Your task to perform on an android device: Show me the best basketball shoes on Nike.com Image 0: 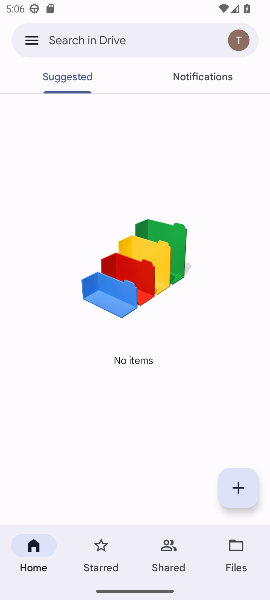
Step 0: press home button
Your task to perform on an android device: Show me the best basketball shoes on Nike.com Image 1: 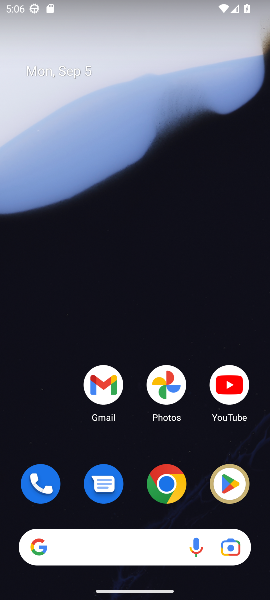
Step 1: click (166, 490)
Your task to perform on an android device: Show me the best basketball shoes on Nike.com Image 2: 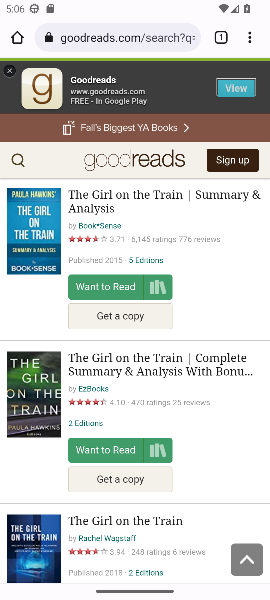
Step 2: click (174, 35)
Your task to perform on an android device: Show me the best basketball shoes on Nike.com Image 3: 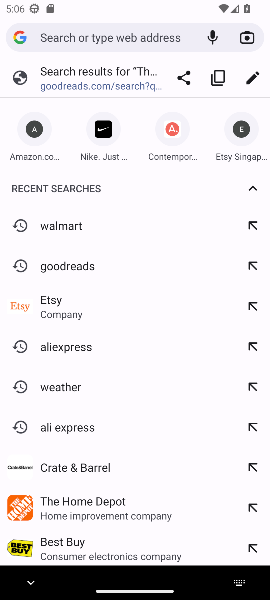
Step 3: type "Nike.com"
Your task to perform on an android device: Show me the best basketball shoes on Nike.com Image 4: 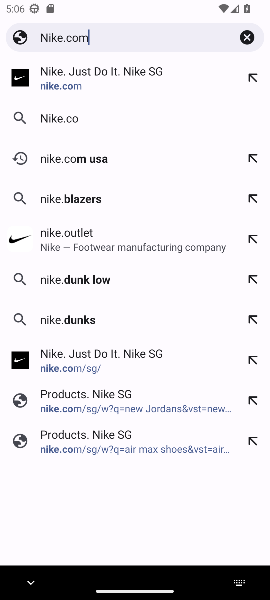
Step 4: press enter
Your task to perform on an android device: Show me the best basketball shoes on Nike.com Image 5: 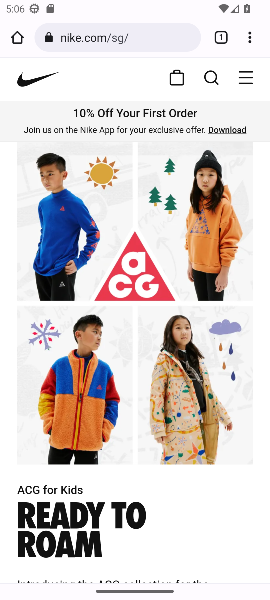
Step 5: click (199, 68)
Your task to perform on an android device: Show me the best basketball shoes on Nike.com Image 6: 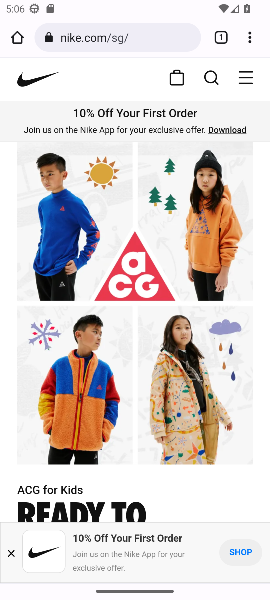
Step 6: click (204, 77)
Your task to perform on an android device: Show me the best basketball shoes on Nike.com Image 7: 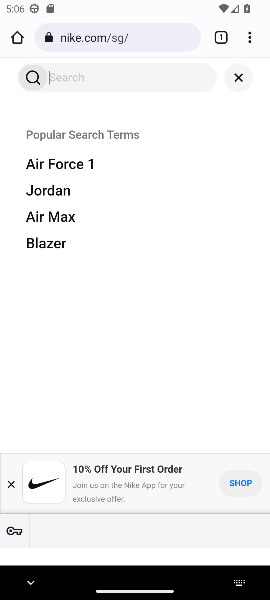
Step 7: click (85, 69)
Your task to perform on an android device: Show me the best basketball shoes on Nike.com Image 8: 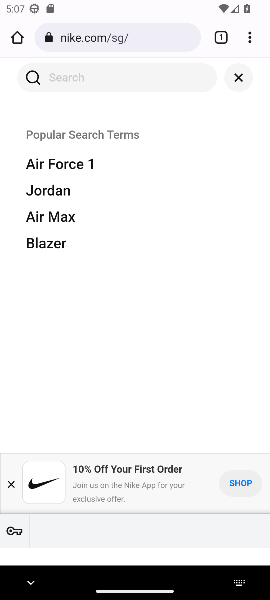
Step 8: type "basketball shoes"
Your task to perform on an android device: Show me the best basketball shoes on Nike.com Image 9: 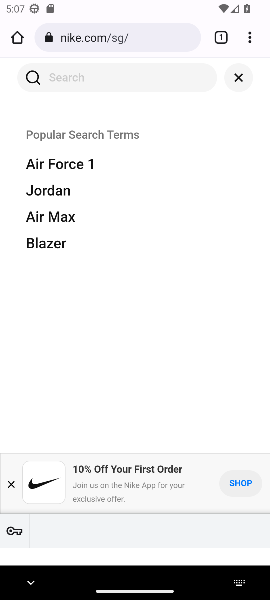
Step 9: press enter
Your task to perform on an android device: Show me the best basketball shoes on Nike.com Image 10: 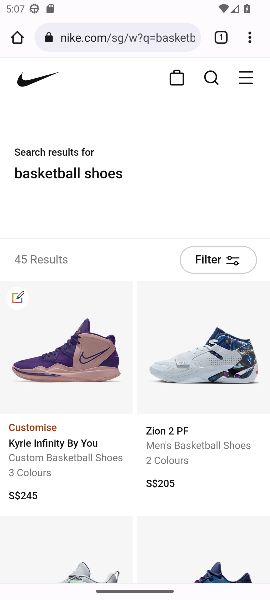
Step 10: task complete